Your task to perform on an android device: Search for seafood restaurants on Google Maps Image 0: 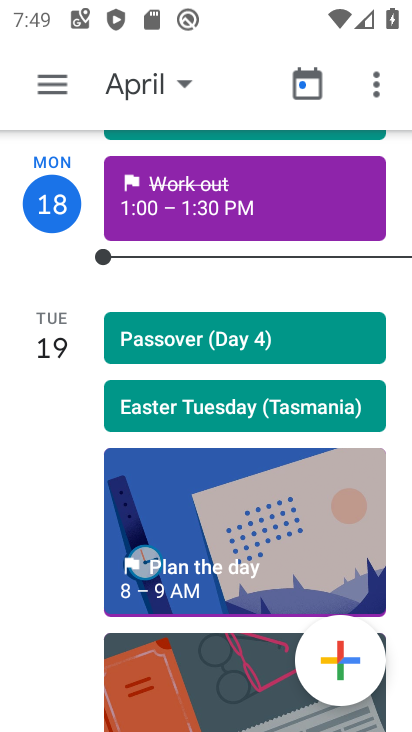
Step 0: press home button
Your task to perform on an android device: Search for seafood restaurants on Google Maps Image 1: 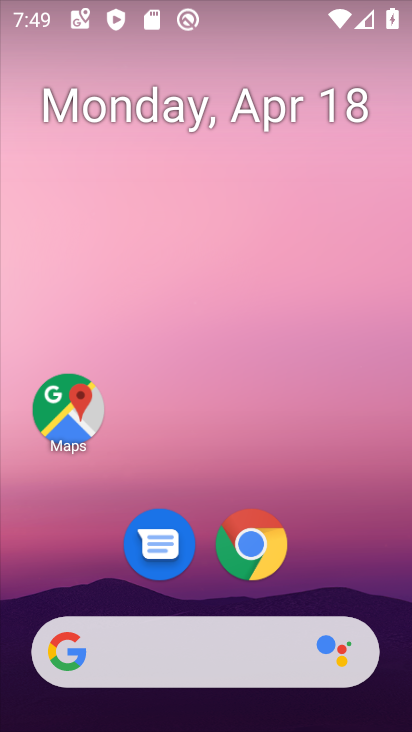
Step 1: click (66, 406)
Your task to perform on an android device: Search for seafood restaurants on Google Maps Image 2: 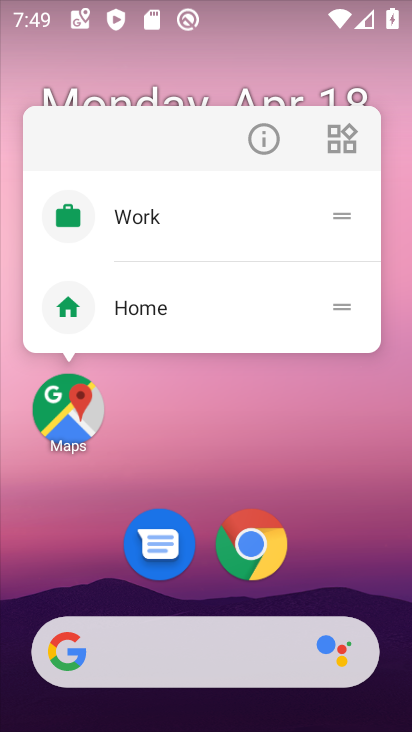
Step 2: click (62, 417)
Your task to perform on an android device: Search for seafood restaurants on Google Maps Image 3: 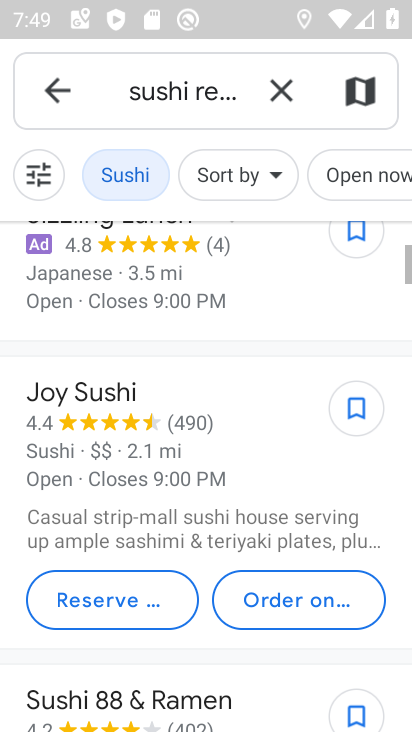
Step 3: click (283, 94)
Your task to perform on an android device: Search for seafood restaurants on Google Maps Image 4: 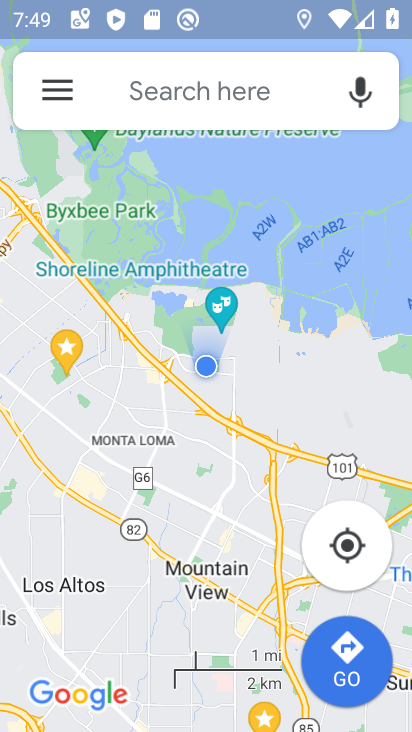
Step 4: click (110, 86)
Your task to perform on an android device: Search for seafood restaurants on Google Maps Image 5: 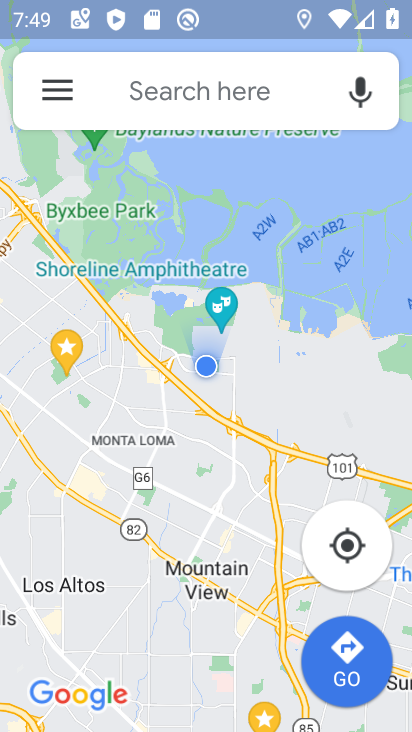
Step 5: click (147, 91)
Your task to perform on an android device: Search for seafood restaurants on Google Maps Image 6: 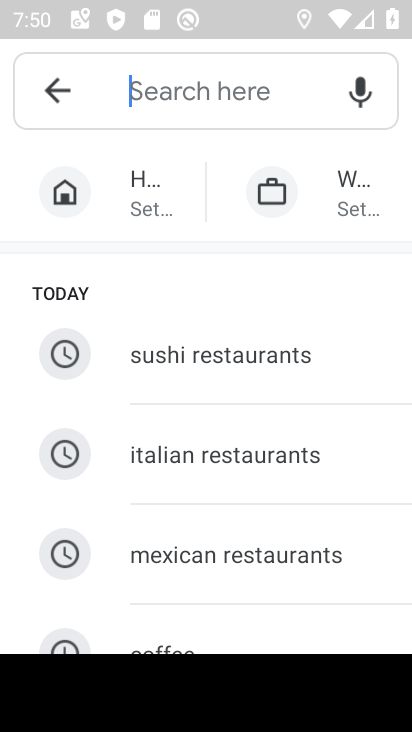
Step 6: type "seafood restaurant"
Your task to perform on an android device: Search for seafood restaurants on Google Maps Image 7: 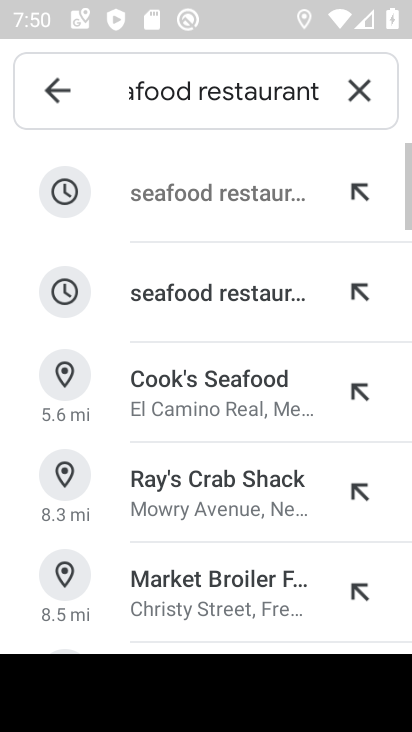
Step 7: click (176, 204)
Your task to perform on an android device: Search for seafood restaurants on Google Maps Image 8: 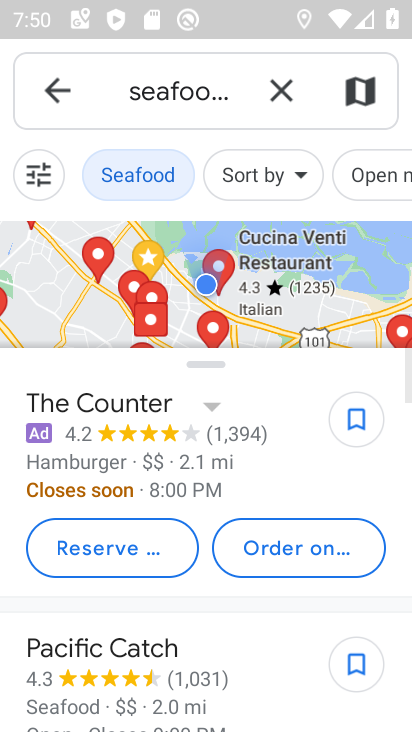
Step 8: task complete